Your task to perform on an android device: open app "Google Chrome" Image 0: 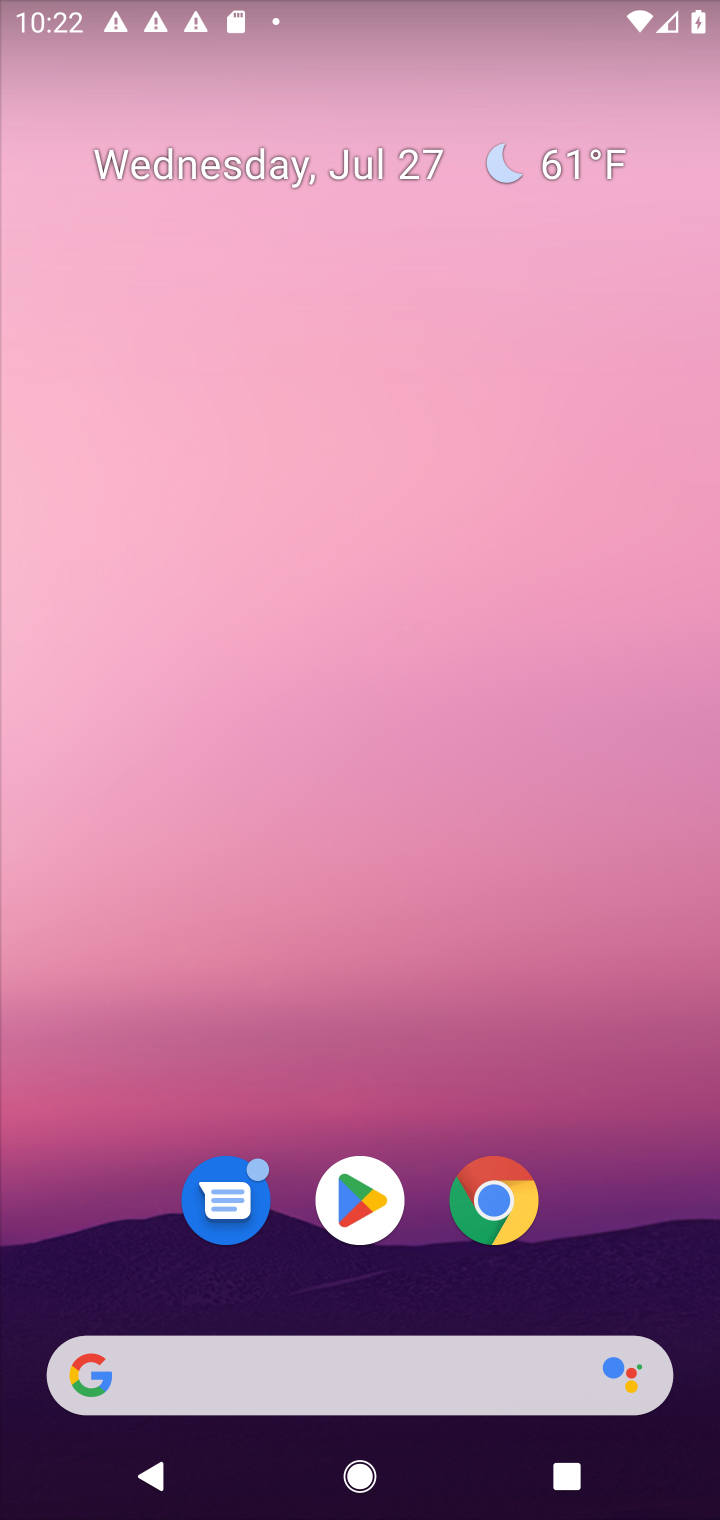
Step 0: click (482, 1206)
Your task to perform on an android device: open app "Google Chrome" Image 1: 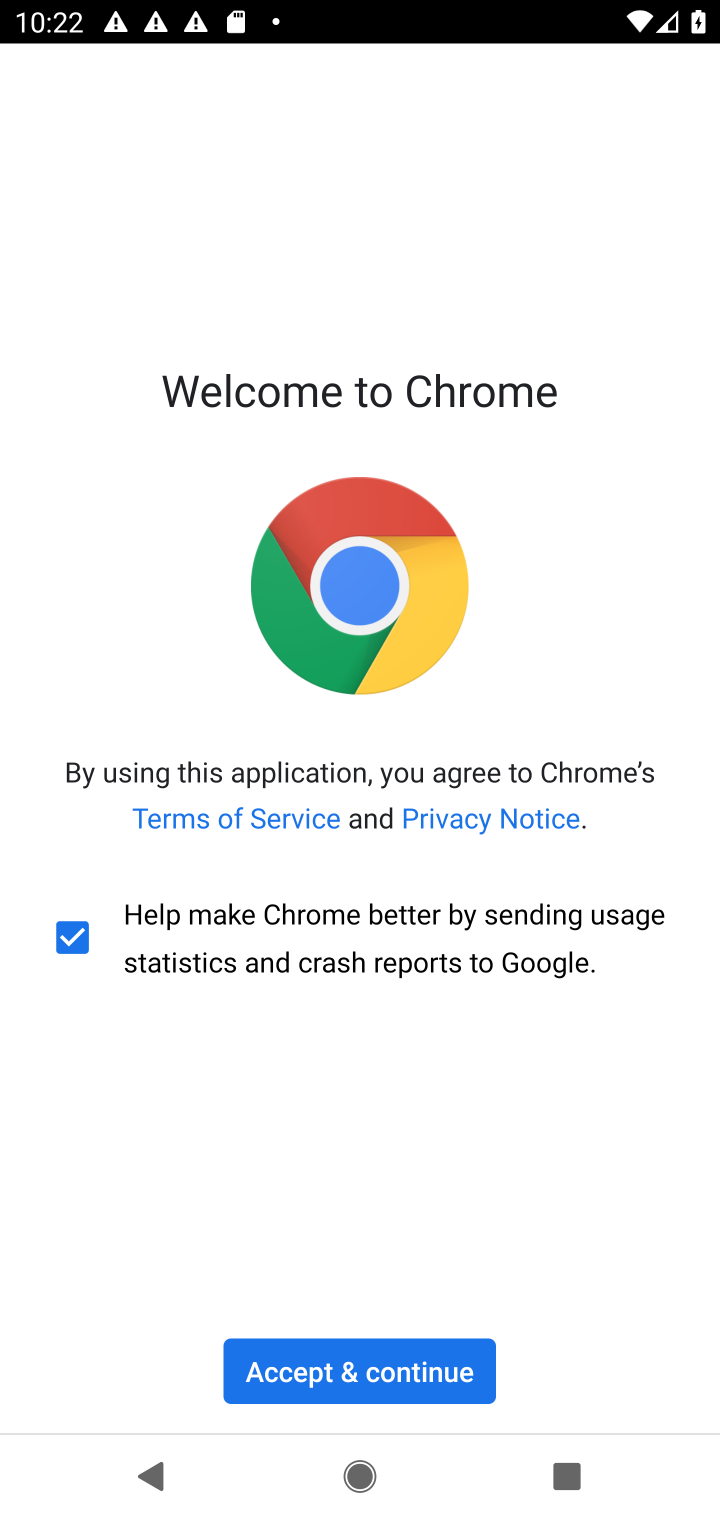
Step 1: click (414, 1359)
Your task to perform on an android device: open app "Google Chrome" Image 2: 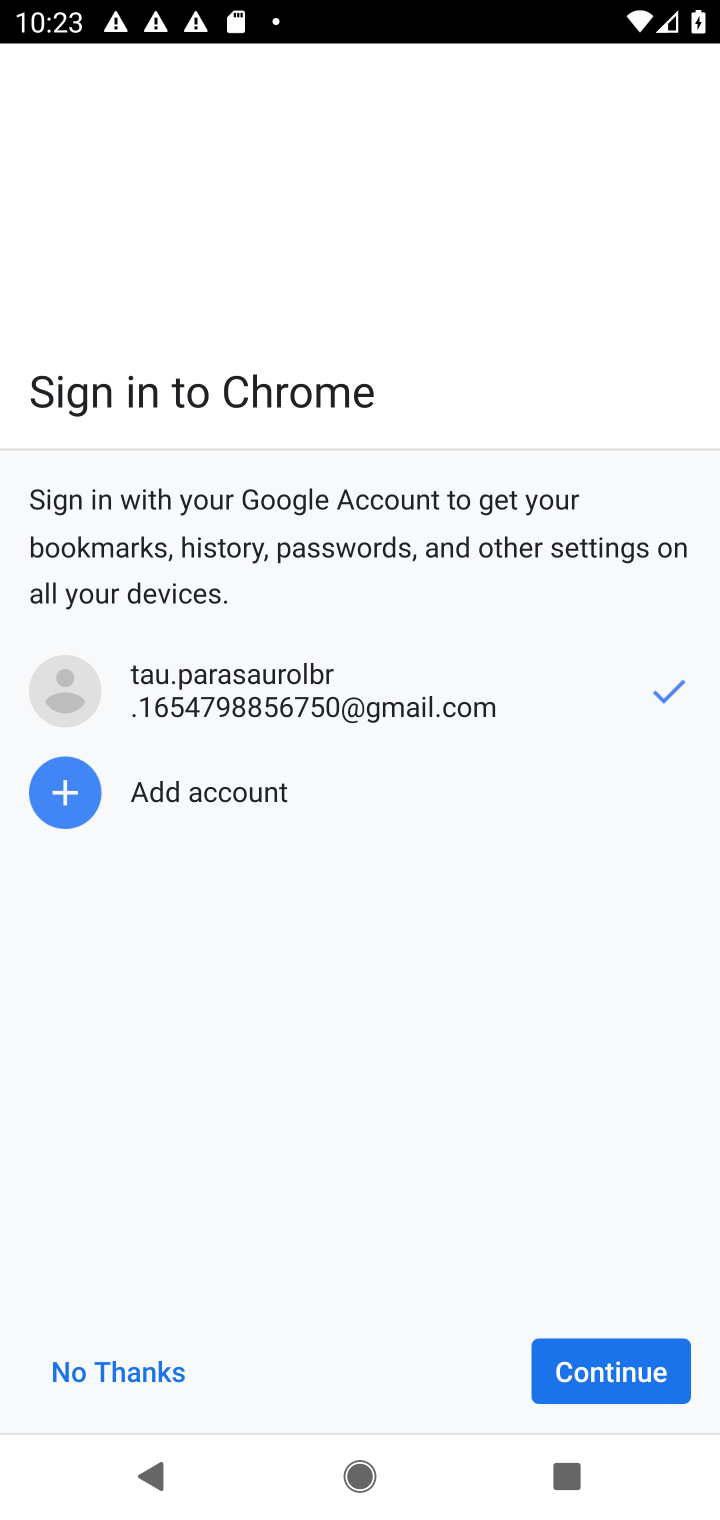
Step 2: click (614, 1393)
Your task to perform on an android device: open app "Google Chrome" Image 3: 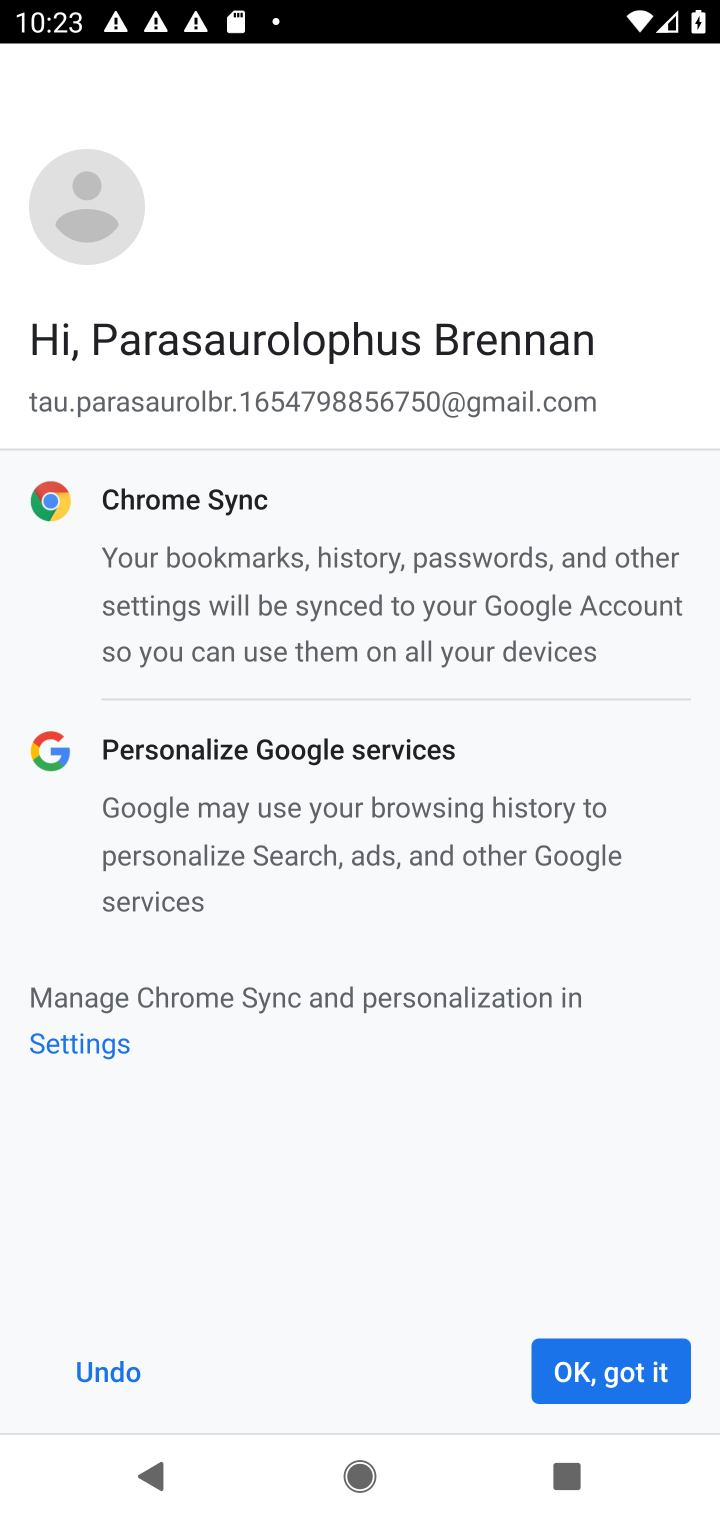
Step 3: click (614, 1393)
Your task to perform on an android device: open app "Google Chrome" Image 4: 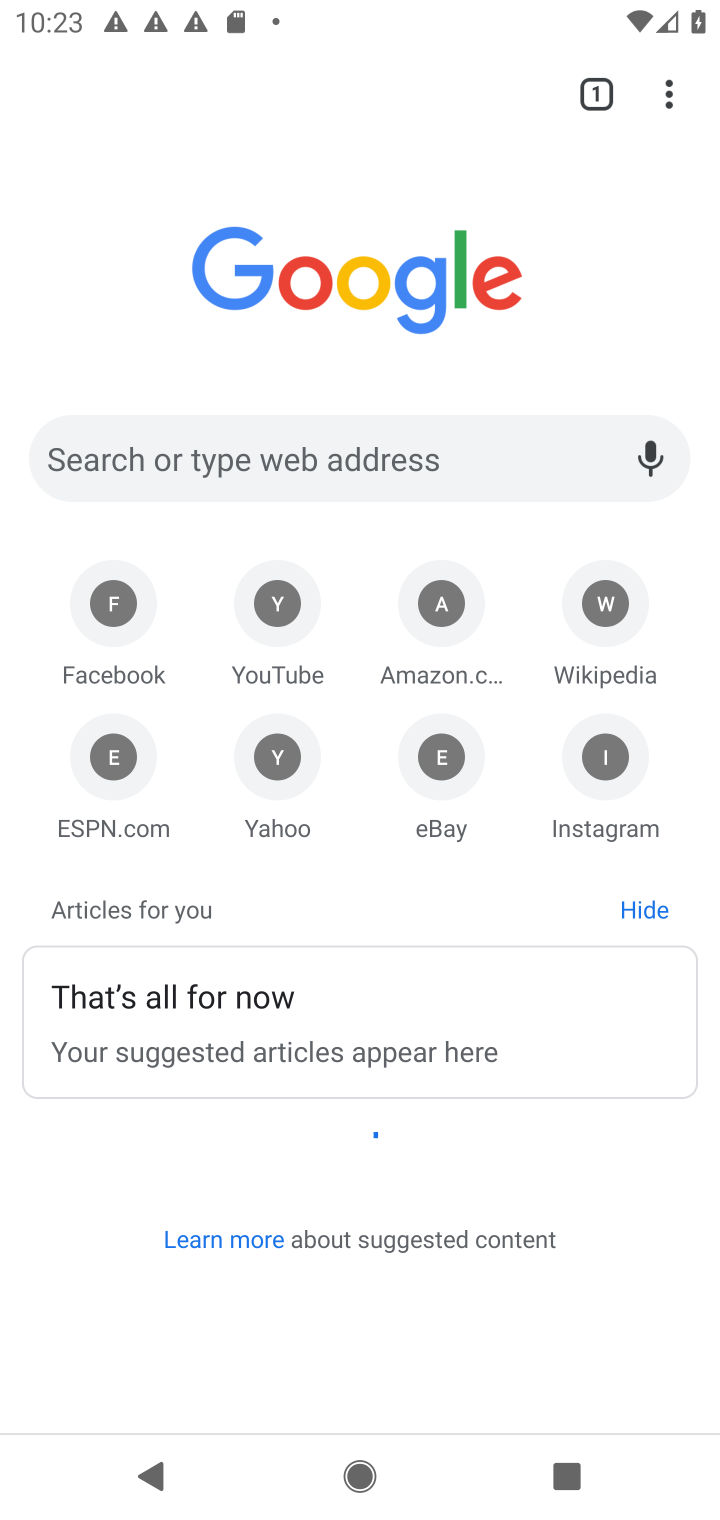
Step 4: task complete